Your task to perform on an android device: What's on my calendar tomorrow? Image 0: 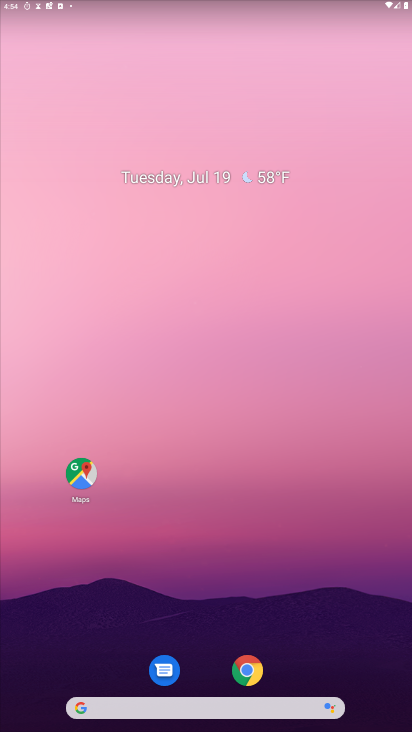
Step 0: drag from (211, 695) to (259, 6)
Your task to perform on an android device: What's on my calendar tomorrow? Image 1: 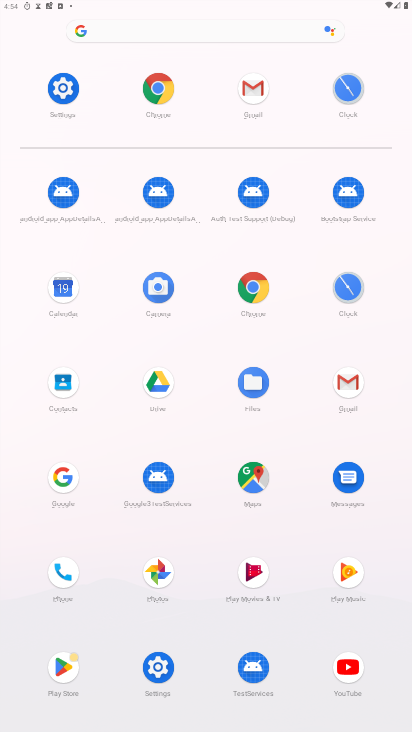
Step 1: click (51, 288)
Your task to perform on an android device: What's on my calendar tomorrow? Image 2: 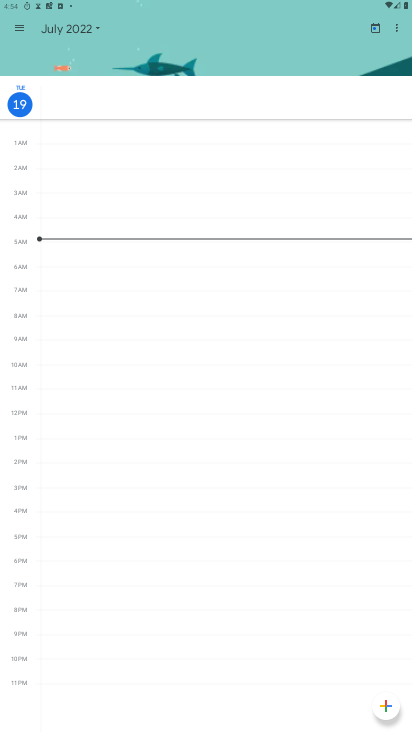
Step 2: click (91, 30)
Your task to perform on an android device: What's on my calendar tomorrow? Image 3: 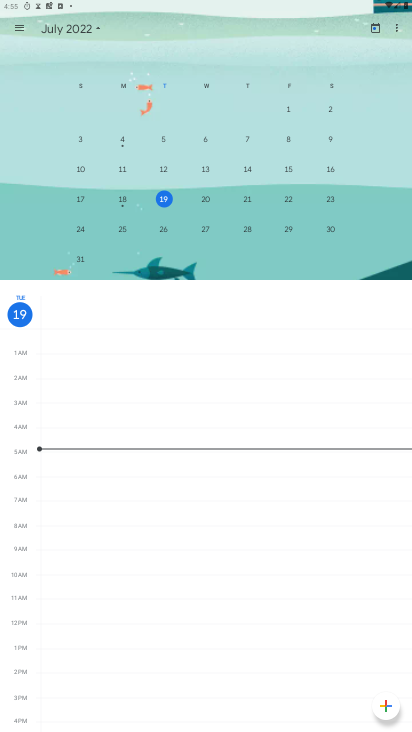
Step 3: click (203, 202)
Your task to perform on an android device: What's on my calendar tomorrow? Image 4: 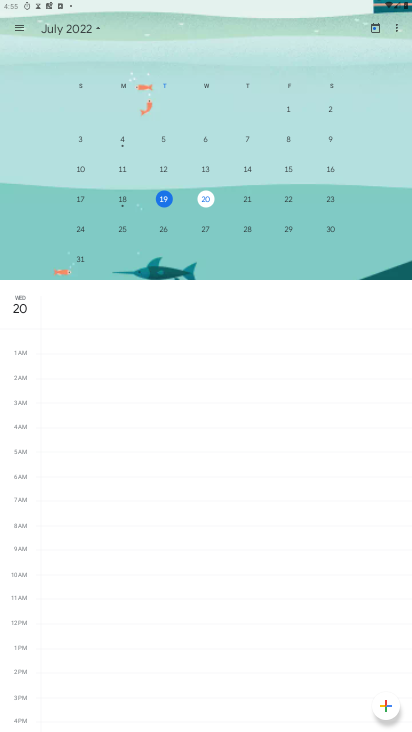
Step 4: task complete